Your task to perform on an android device: Open Google Chrome and open the bookmarks view Image 0: 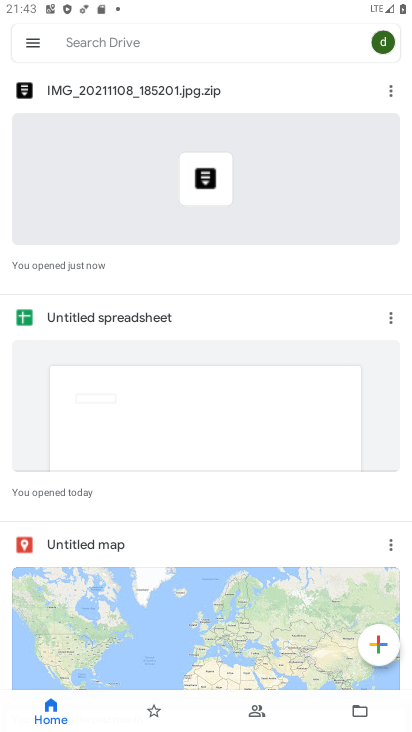
Step 0: press back button
Your task to perform on an android device: Open Google Chrome and open the bookmarks view Image 1: 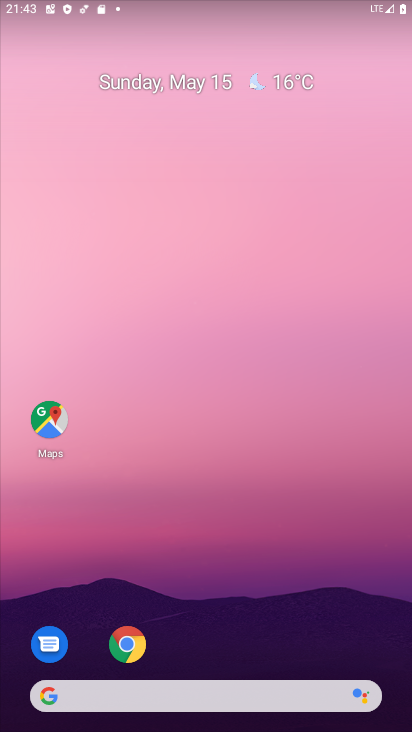
Step 1: click (120, 644)
Your task to perform on an android device: Open Google Chrome and open the bookmarks view Image 2: 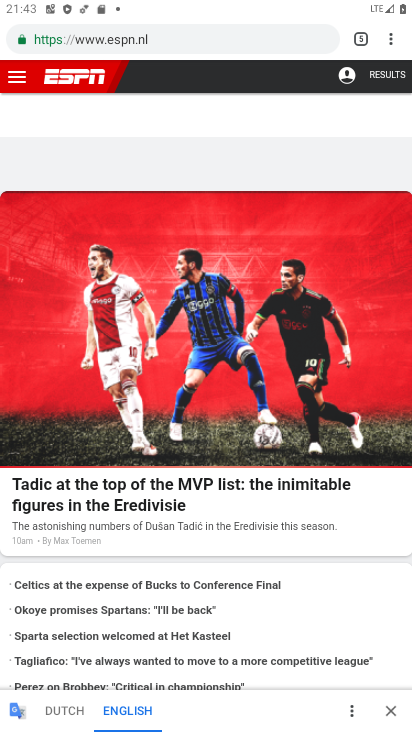
Step 2: task complete